Your task to perform on an android device: toggle wifi Image 0: 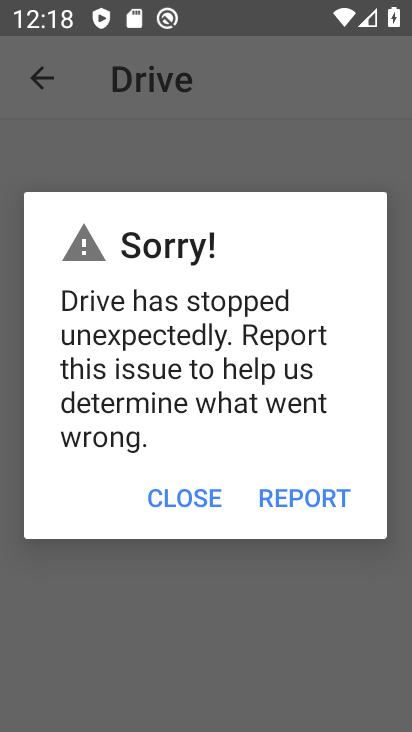
Step 0: press home button
Your task to perform on an android device: toggle wifi Image 1: 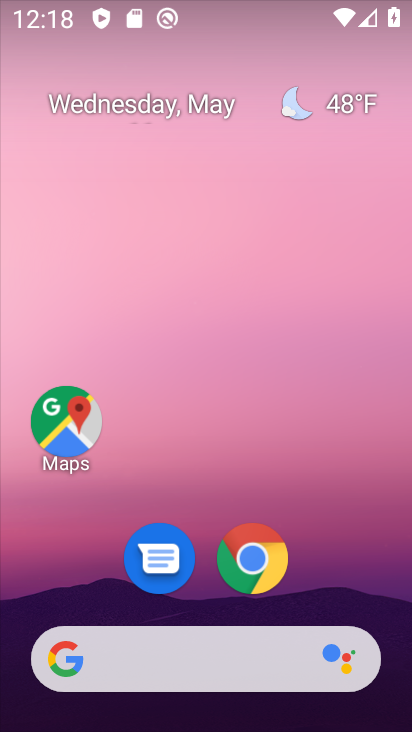
Step 1: drag from (361, 430) to (362, 114)
Your task to perform on an android device: toggle wifi Image 2: 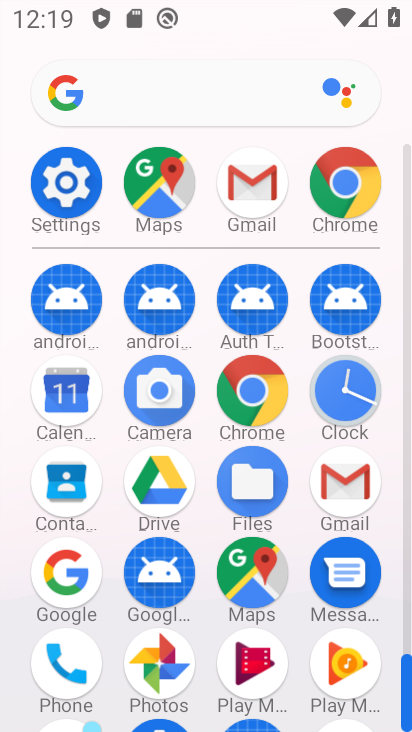
Step 2: click (54, 190)
Your task to perform on an android device: toggle wifi Image 3: 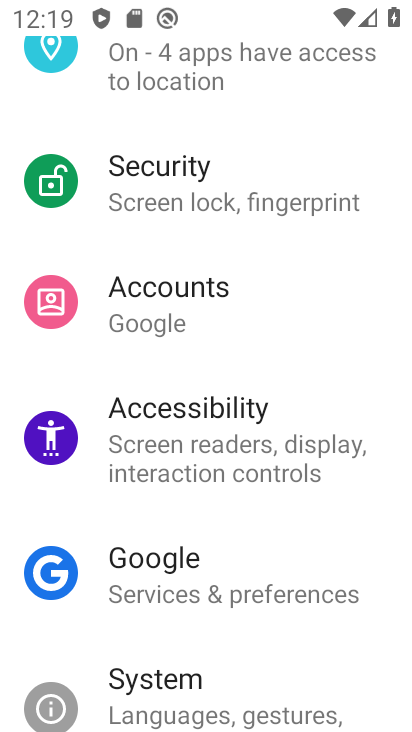
Step 3: drag from (285, 205) to (240, 653)
Your task to perform on an android device: toggle wifi Image 4: 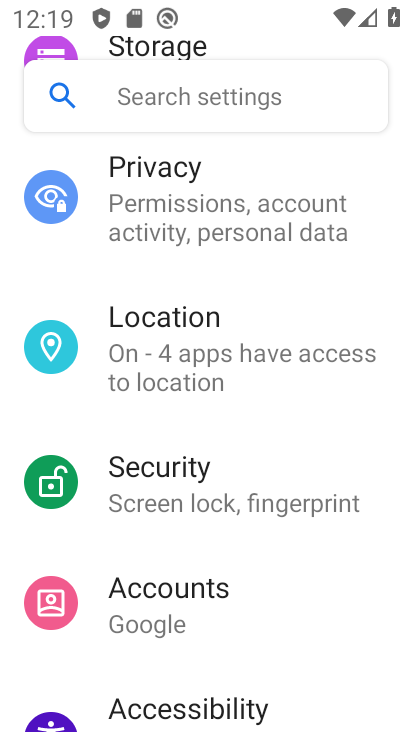
Step 4: drag from (214, 252) to (246, 591)
Your task to perform on an android device: toggle wifi Image 5: 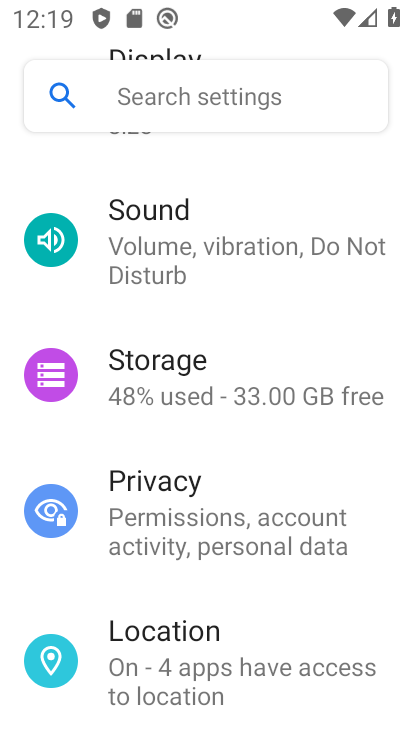
Step 5: drag from (217, 287) to (227, 654)
Your task to perform on an android device: toggle wifi Image 6: 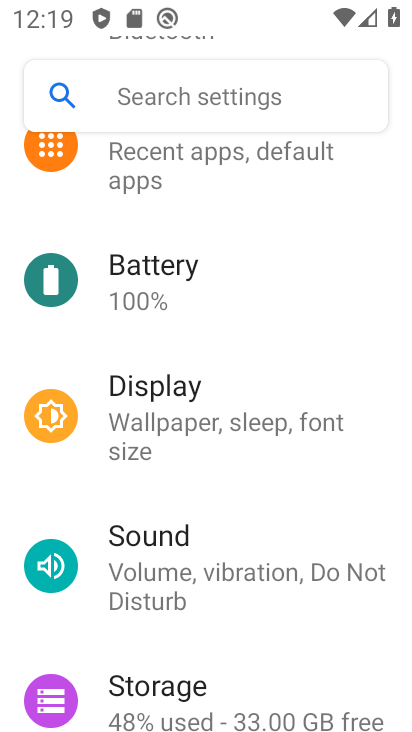
Step 6: drag from (249, 286) to (249, 644)
Your task to perform on an android device: toggle wifi Image 7: 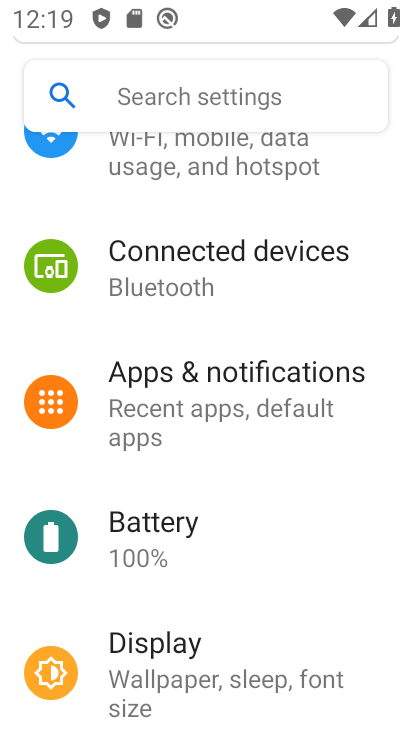
Step 7: drag from (251, 282) to (261, 642)
Your task to perform on an android device: toggle wifi Image 8: 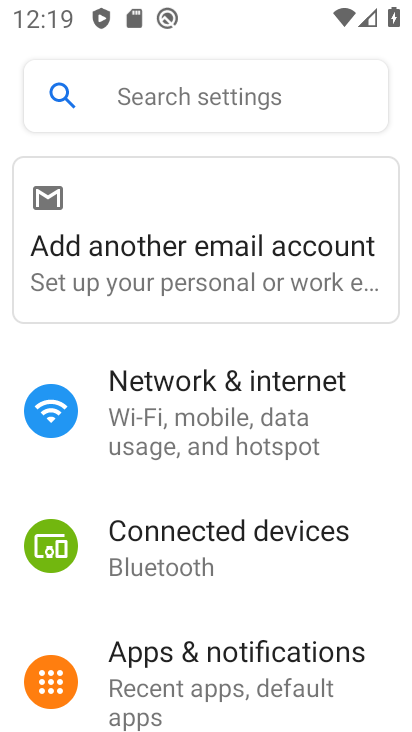
Step 8: click (168, 428)
Your task to perform on an android device: toggle wifi Image 9: 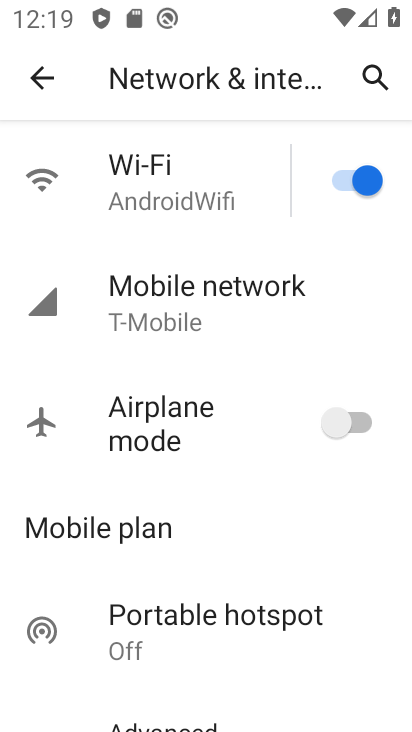
Step 9: click (342, 188)
Your task to perform on an android device: toggle wifi Image 10: 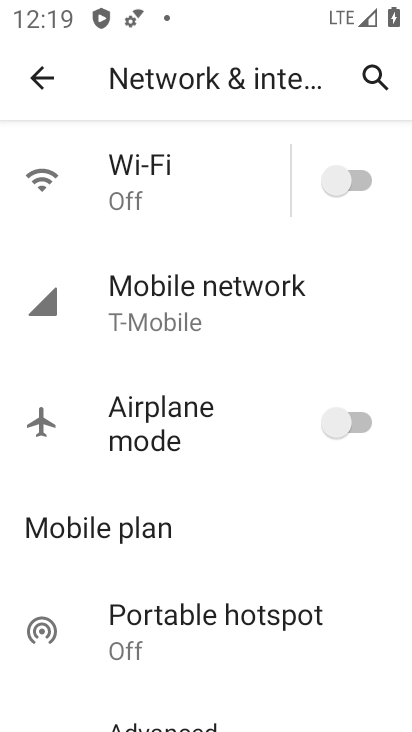
Step 10: task complete